Your task to perform on an android device: Open internet settings Image 0: 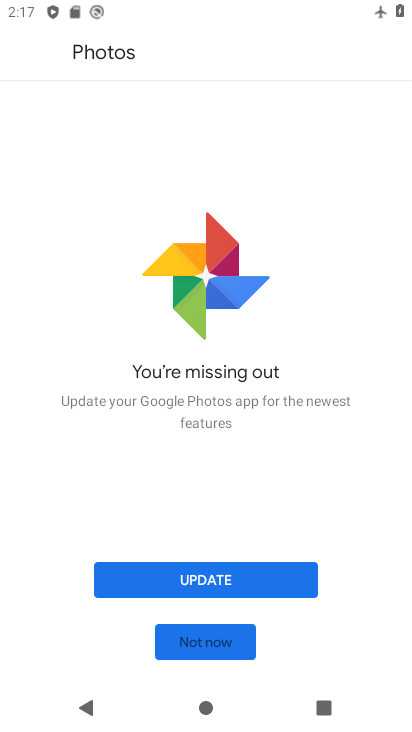
Step 0: press back button
Your task to perform on an android device: Open internet settings Image 1: 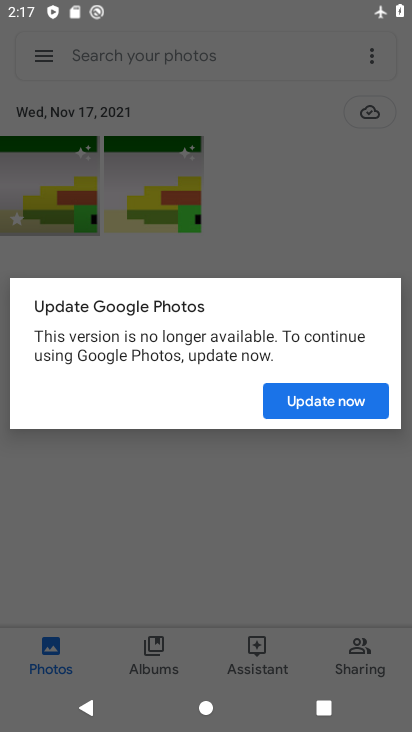
Step 1: press home button
Your task to perform on an android device: Open internet settings Image 2: 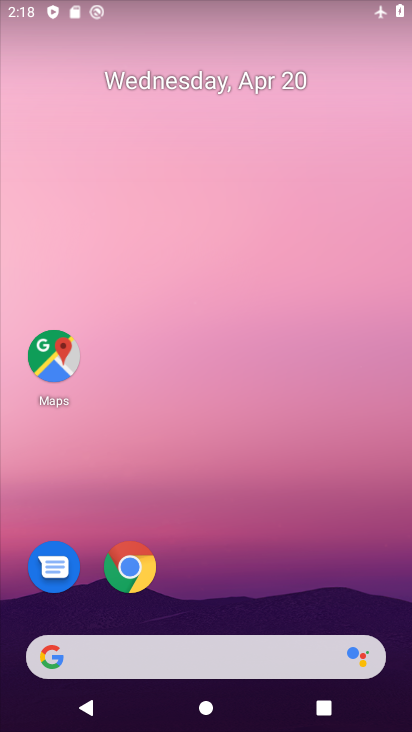
Step 2: click (187, 659)
Your task to perform on an android device: Open internet settings Image 3: 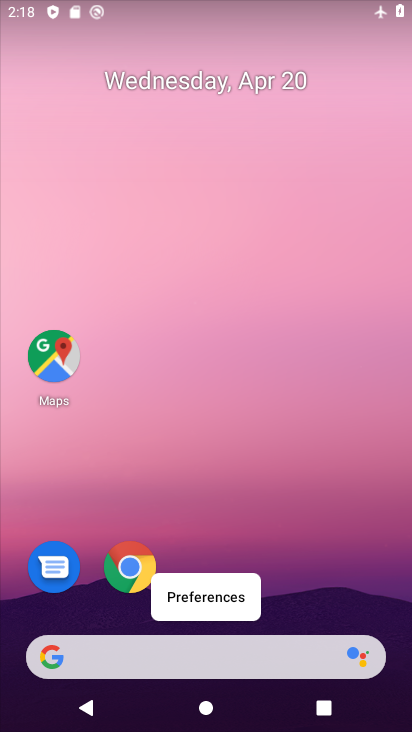
Step 3: drag from (238, 654) to (212, 66)
Your task to perform on an android device: Open internet settings Image 4: 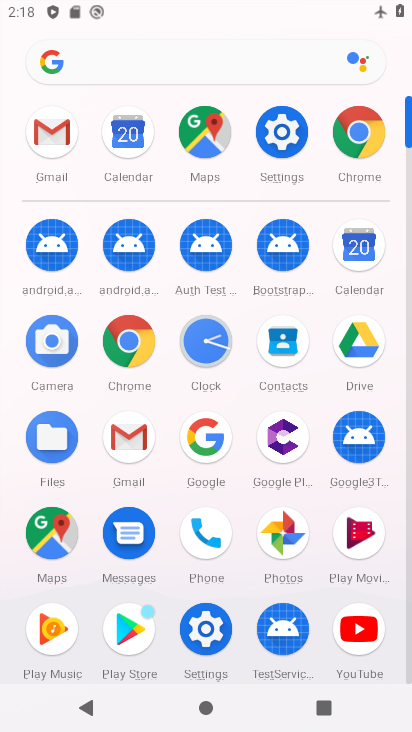
Step 4: click (282, 111)
Your task to perform on an android device: Open internet settings Image 5: 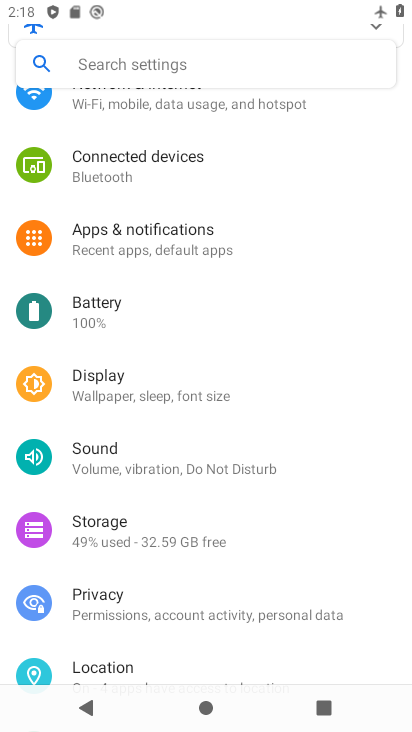
Step 5: drag from (111, 178) to (130, 429)
Your task to perform on an android device: Open internet settings Image 6: 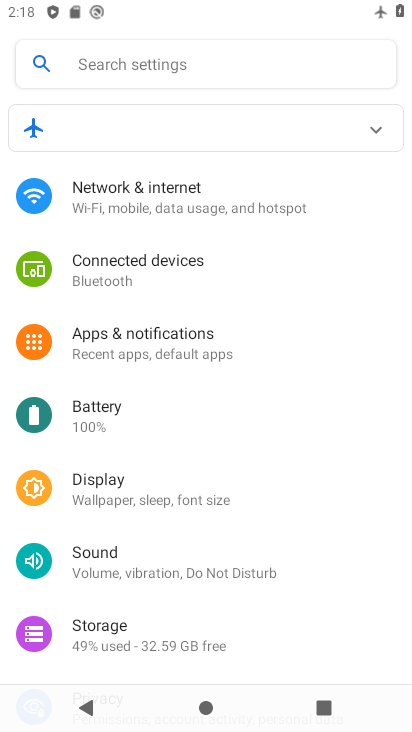
Step 6: click (159, 182)
Your task to perform on an android device: Open internet settings Image 7: 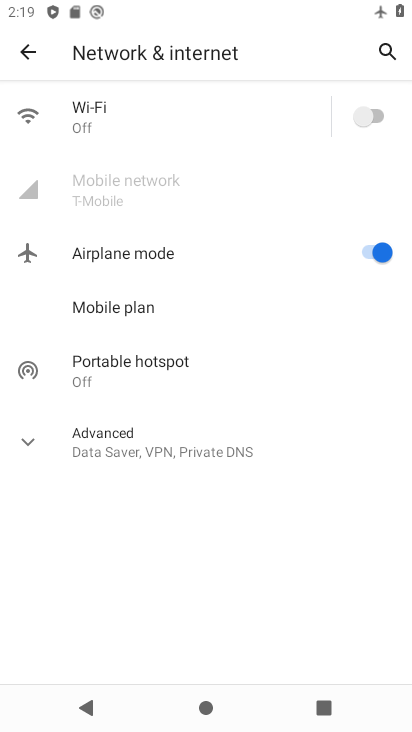
Step 7: task complete